Your task to perform on an android device: Check the weather Image 0: 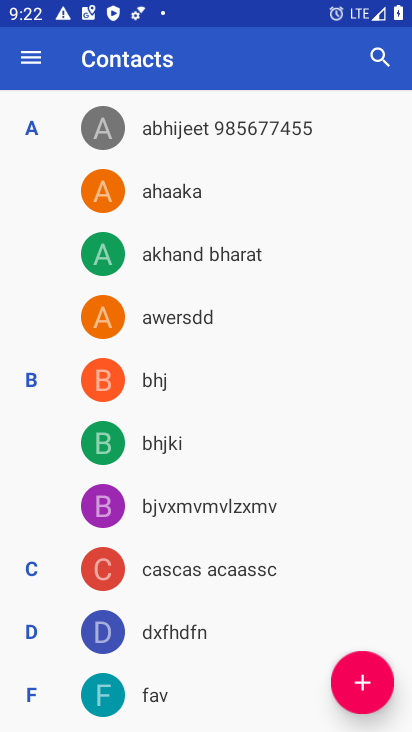
Step 0: press home button
Your task to perform on an android device: Check the weather Image 1: 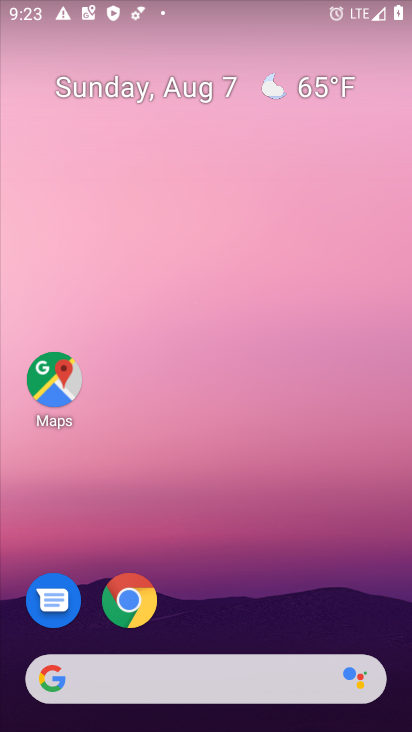
Step 1: click (161, 672)
Your task to perform on an android device: Check the weather Image 2: 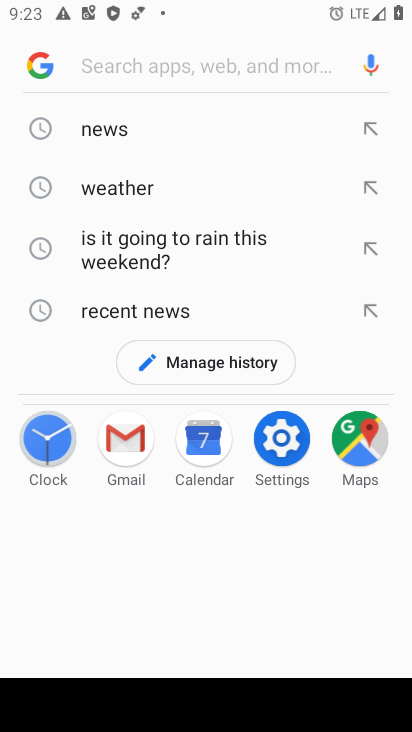
Step 2: click (98, 195)
Your task to perform on an android device: Check the weather Image 3: 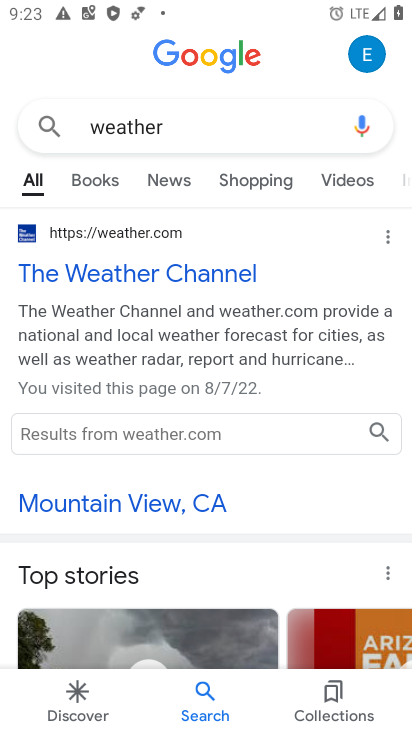
Step 3: click (139, 277)
Your task to perform on an android device: Check the weather Image 4: 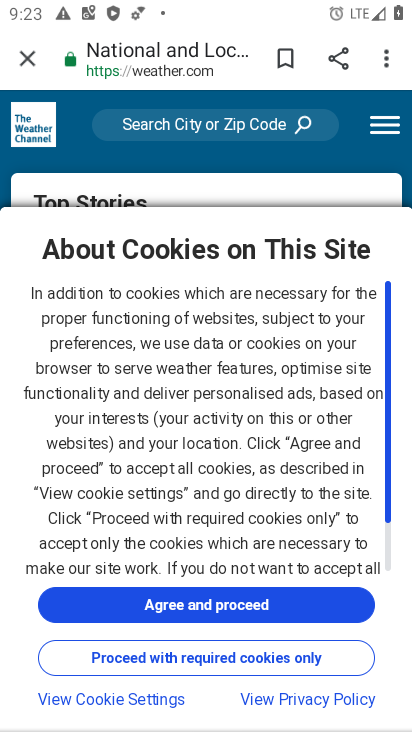
Step 4: click (185, 603)
Your task to perform on an android device: Check the weather Image 5: 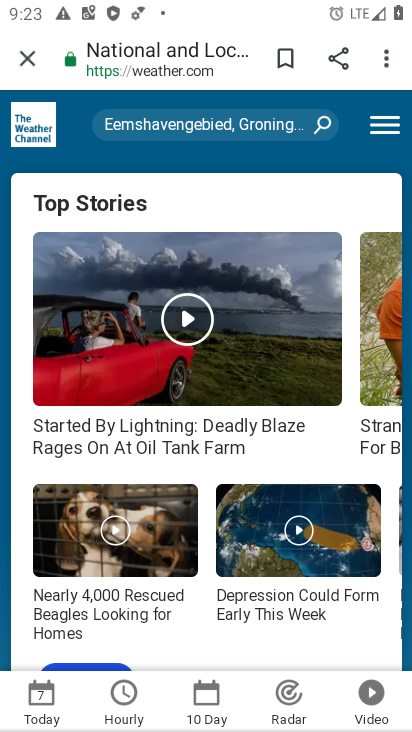
Step 5: click (26, 705)
Your task to perform on an android device: Check the weather Image 6: 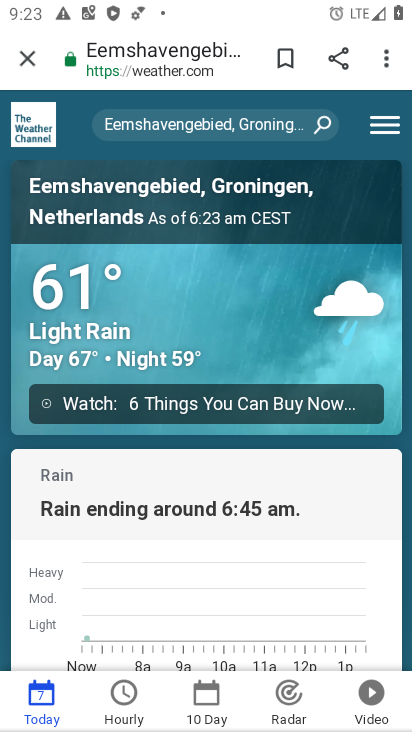
Step 6: task complete